Your task to perform on an android device: Search for "macbook pro" on target, select the first entry, add it to the cart, then select checkout. Image 0: 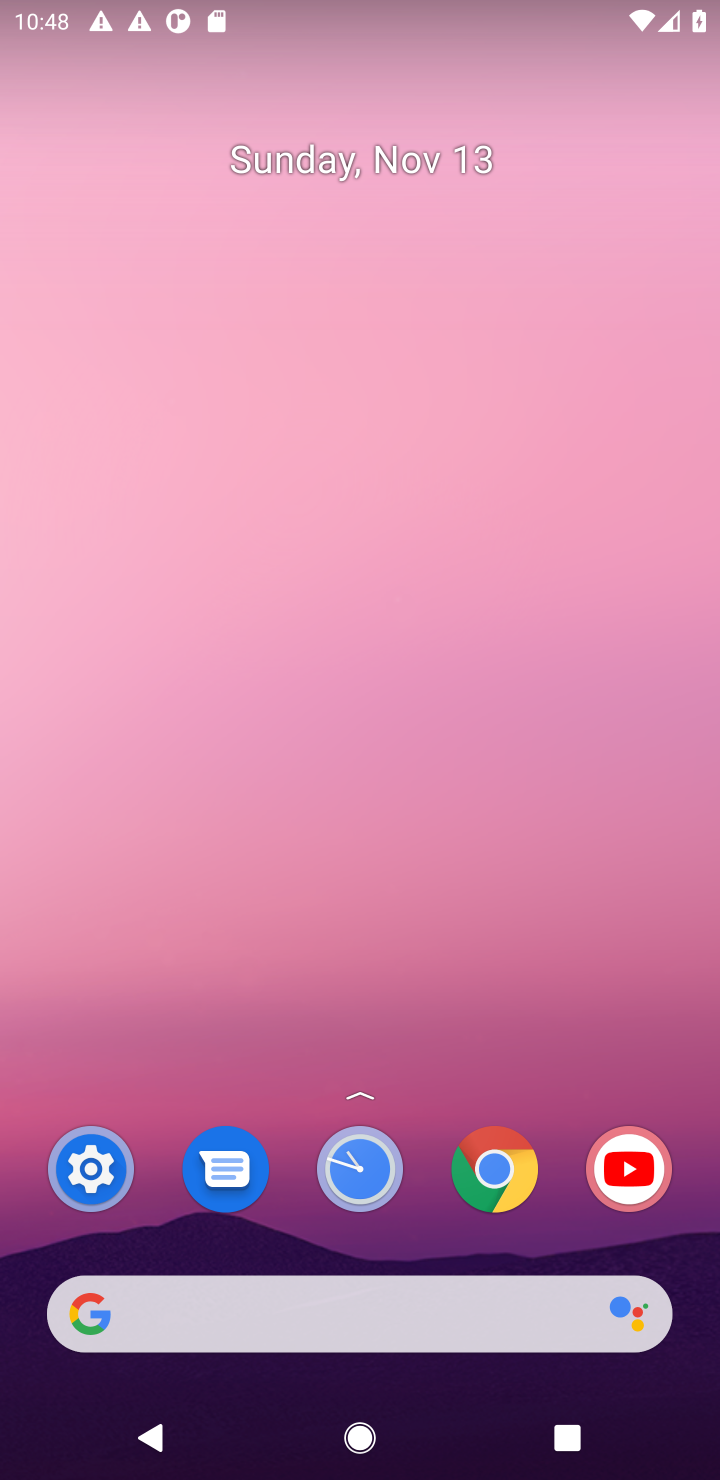
Step 0: drag from (441, 1240) to (248, 113)
Your task to perform on an android device: Search for "macbook pro" on target, select the first entry, add it to the cart, then select checkout. Image 1: 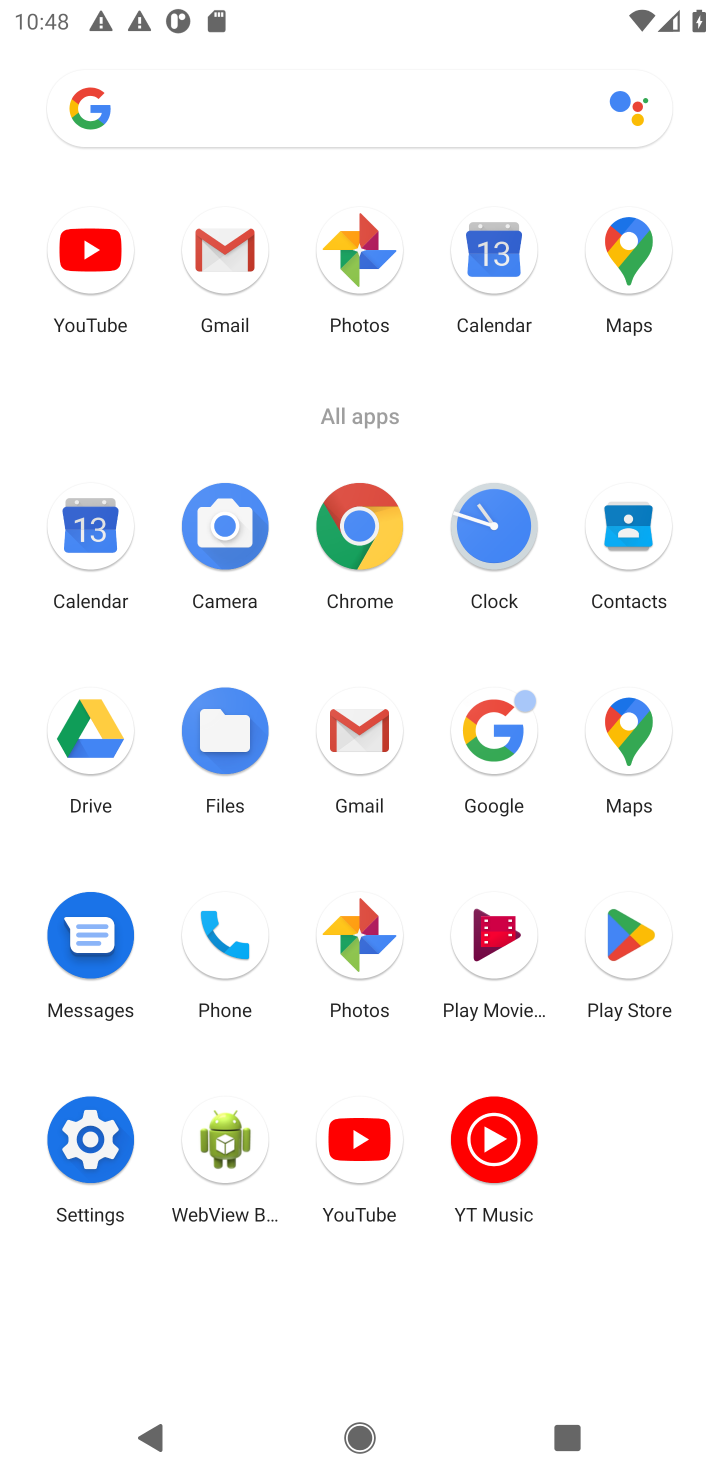
Step 1: click (351, 522)
Your task to perform on an android device: Search for "macbook pro" on target, select the first entry, add it to the cart, then select checkout. Image 2: 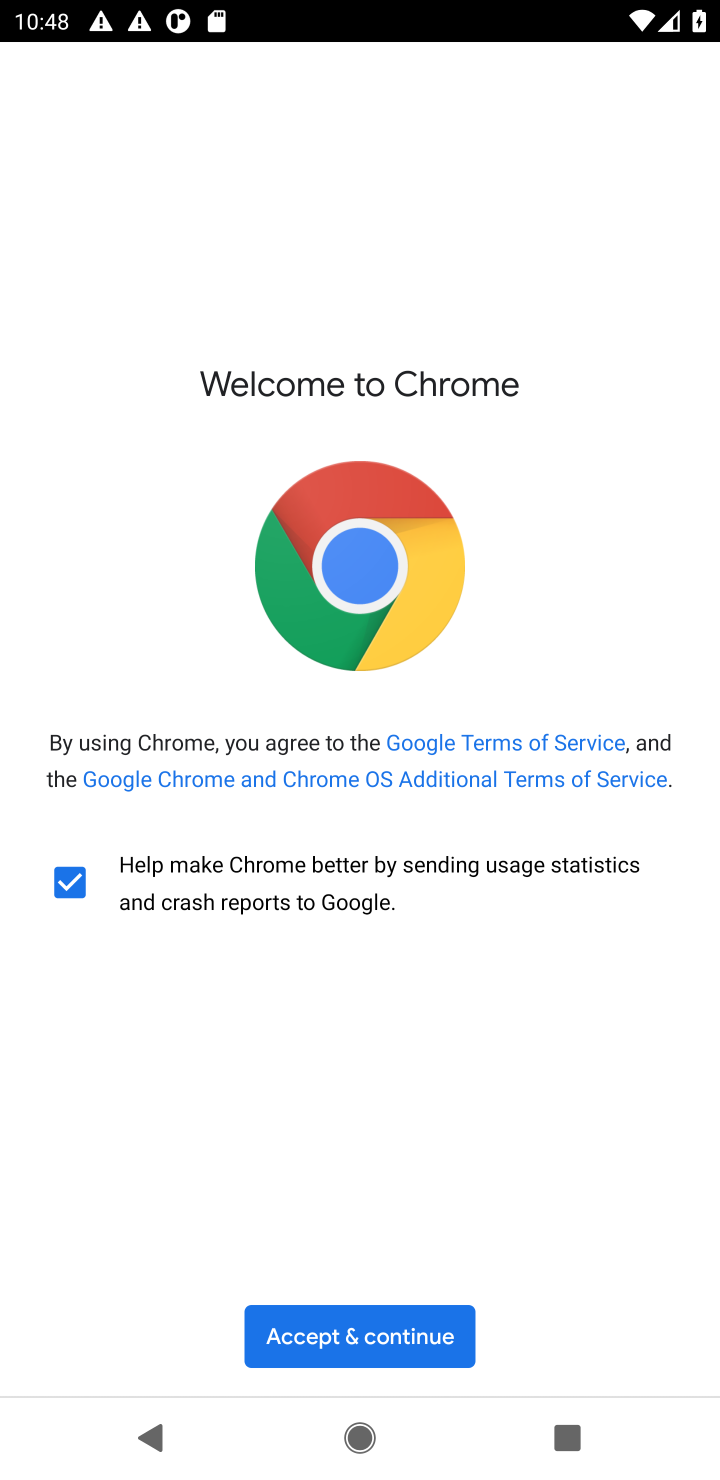
Step 2: click (403, 1344)
Your task to perform on an android device: Search for "macbook pro" on target, select the first entry, add it to the cart, then select checkout. Image 3: 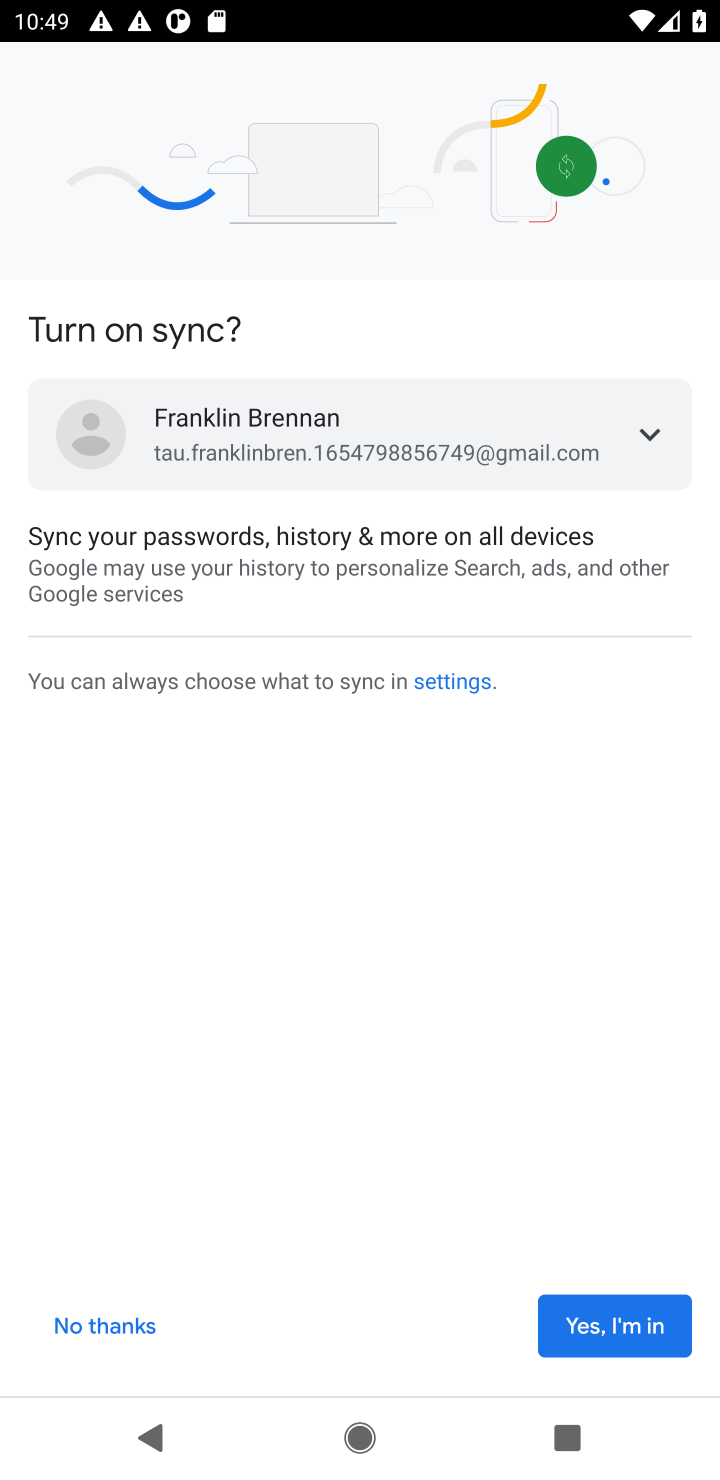
Step 3: click (607, 1317)
Your task to perform on an android device: Search for "macbook pro" on target, select the first entry, add it to the cart, then select checkout. Image 4: 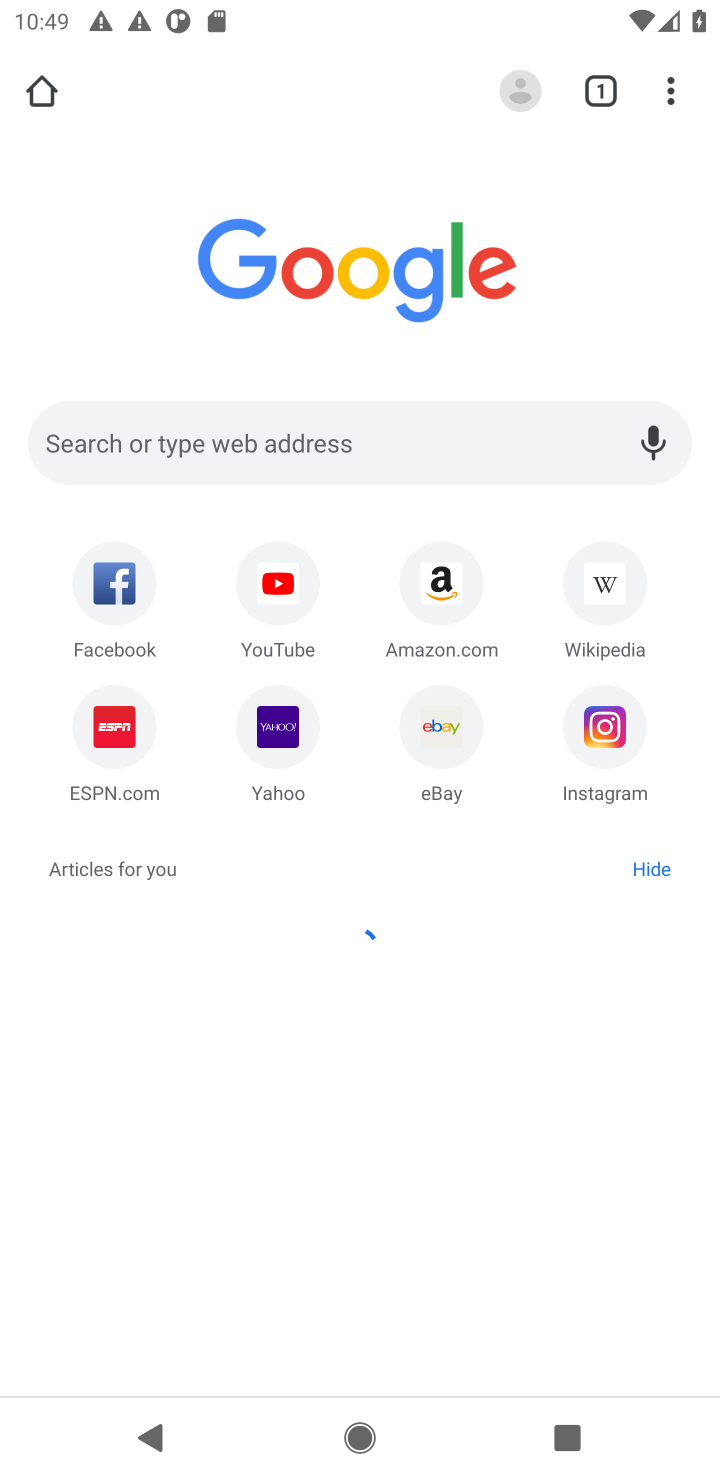
Step 4: click (462, 435)
Your task to perform on an android device: Search for "macbook pro" on target, select the first entry, add it to the cart, then select checkout. Image 5: 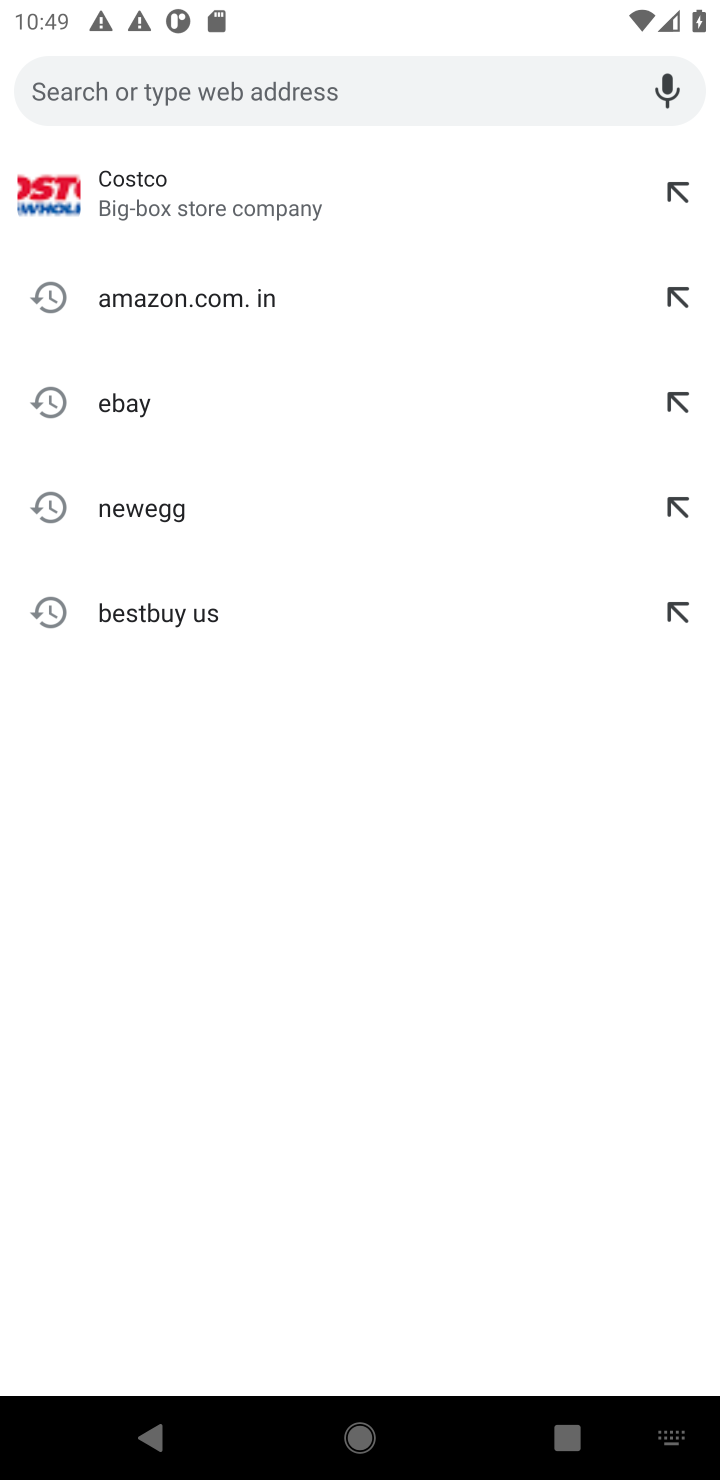
Step 5: type "target.com"
Your task to perform on an android device: Search for "macbook pro" on target, select the first entry, add it to the cart, then select checkout. Image 6: 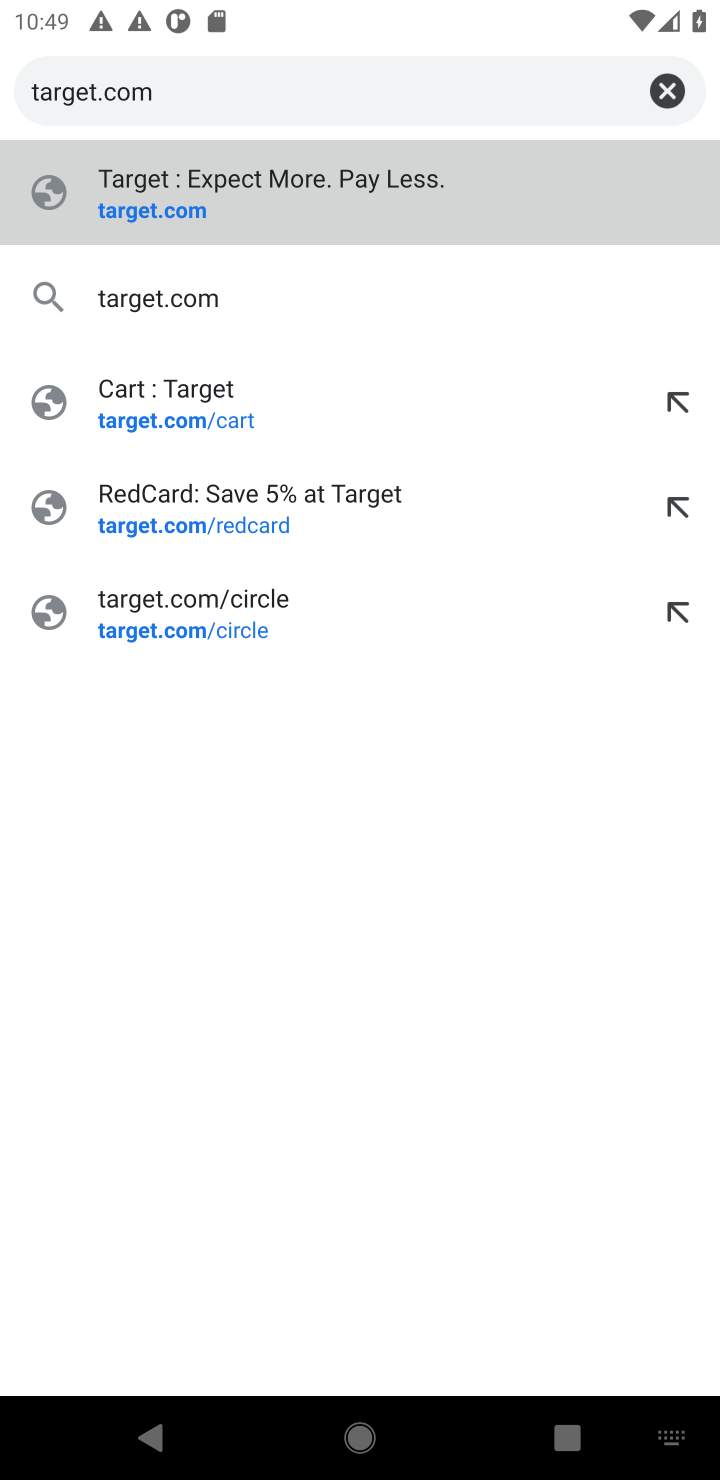
Step 6: press enter
Your task to perform on an android device: Search for "macbook pro" on target, select the first entry, add it to the cart, then select checkout. Image 7: 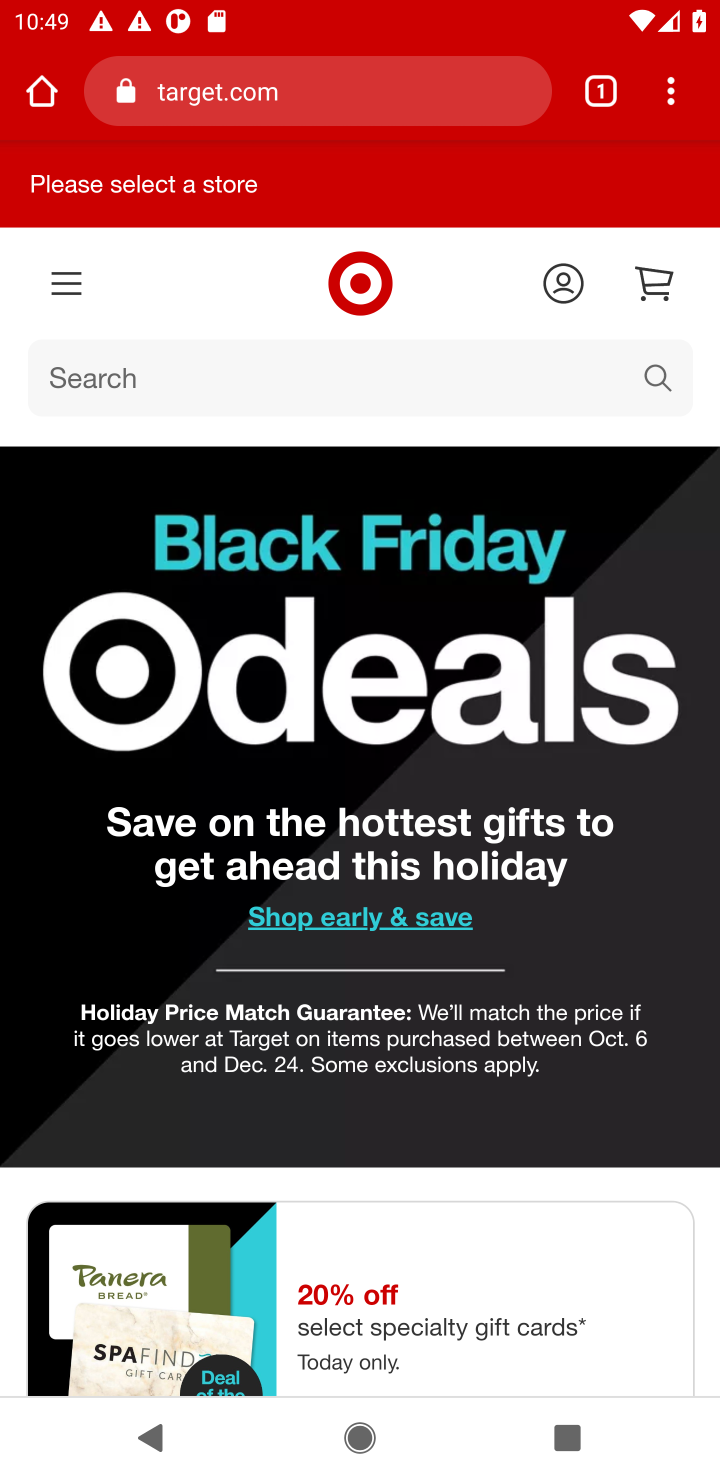
Step 7: click (413, 379)
Your task to perform on an android device: Search for "macbook pro" on target, select the first entry, add it to the cart, then select checkout. Image 8: 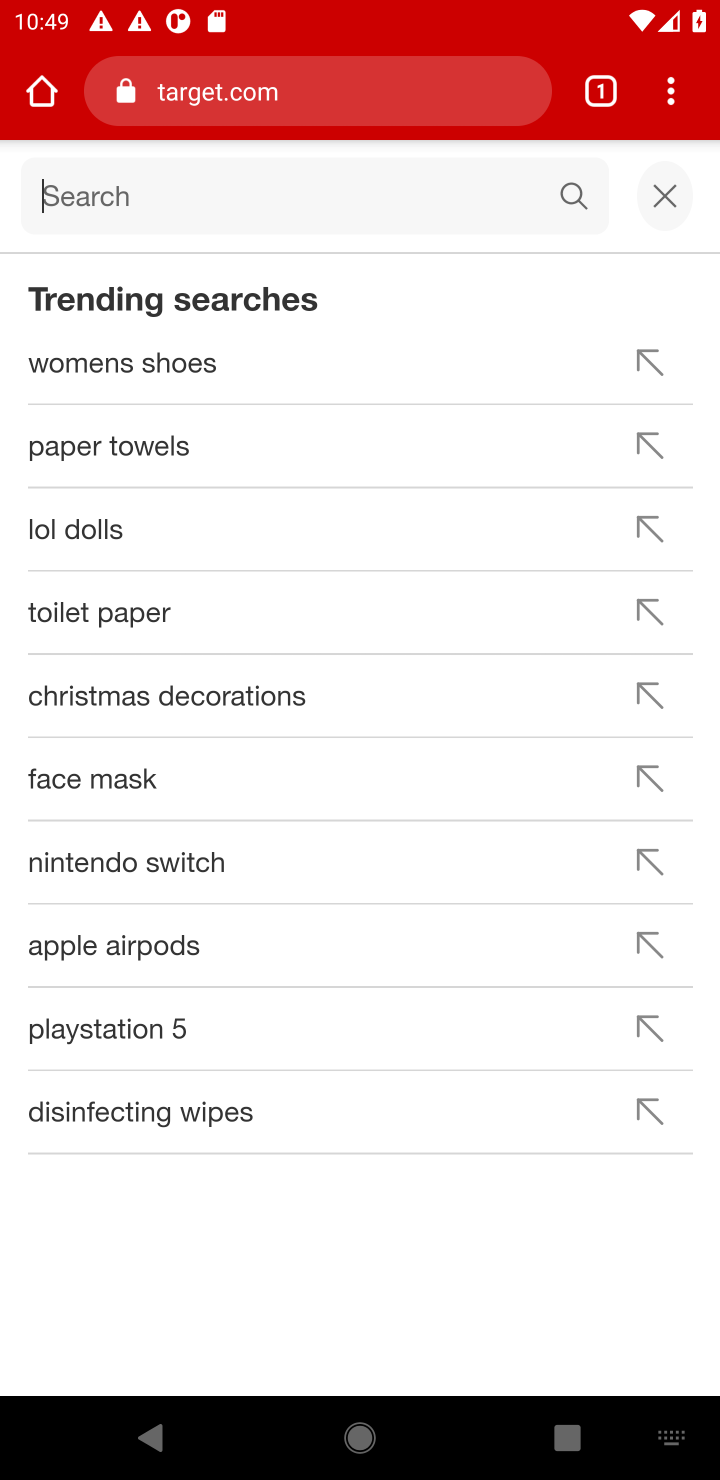
Step 8: type "macbook pro"
Your task to perform on an android device: Search for "macbook pro" on target, select the first entry, add it to the cart, then select checkout. Image 9: 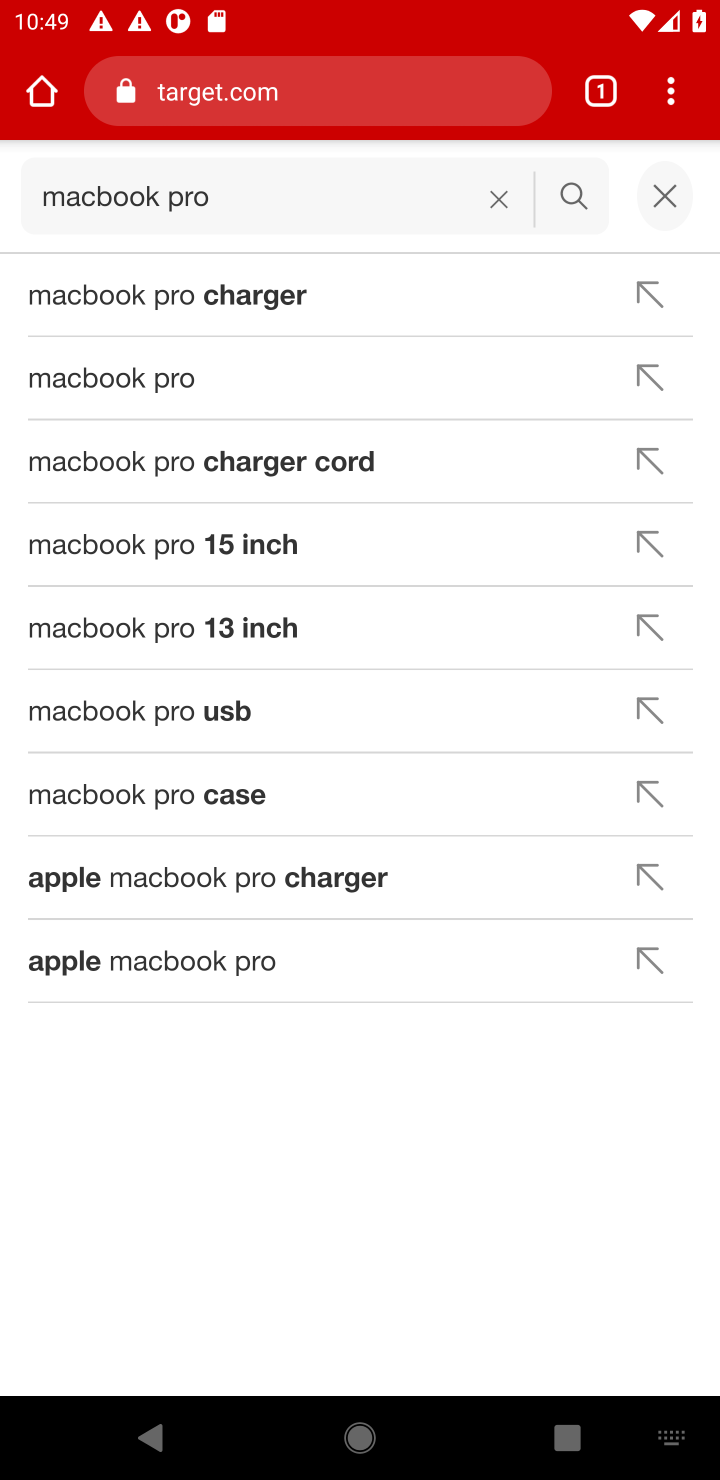
Step 9: press enter
Your task to perform on an android device: Search for "macbook pro" on target, select the first entry, add it to the cart, then select checkout. Image 10: 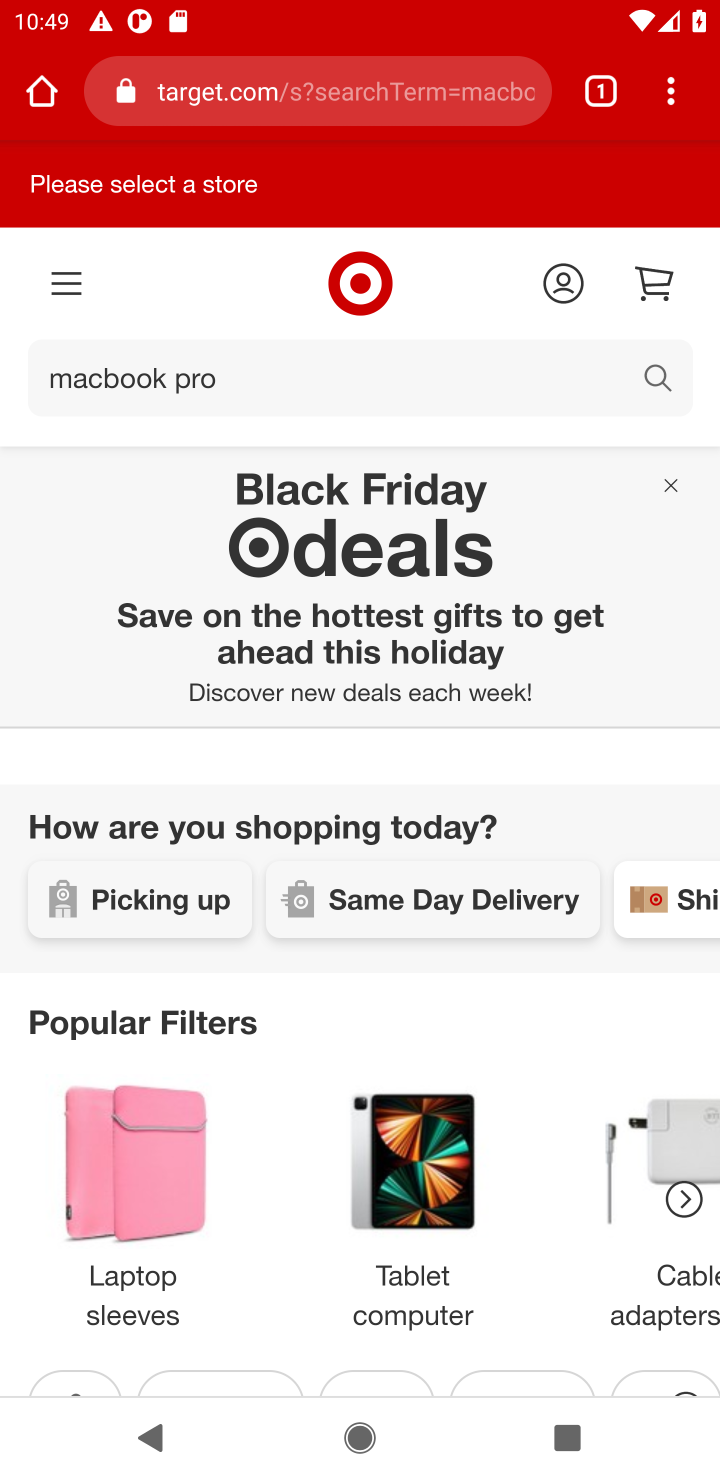
Step 10: drag from (305, 812) to (452, 131)
Your task to perform on an android device: Search for "macbook pro" on target, select the first entry, add it to the cart, then select checkout. Image 11: 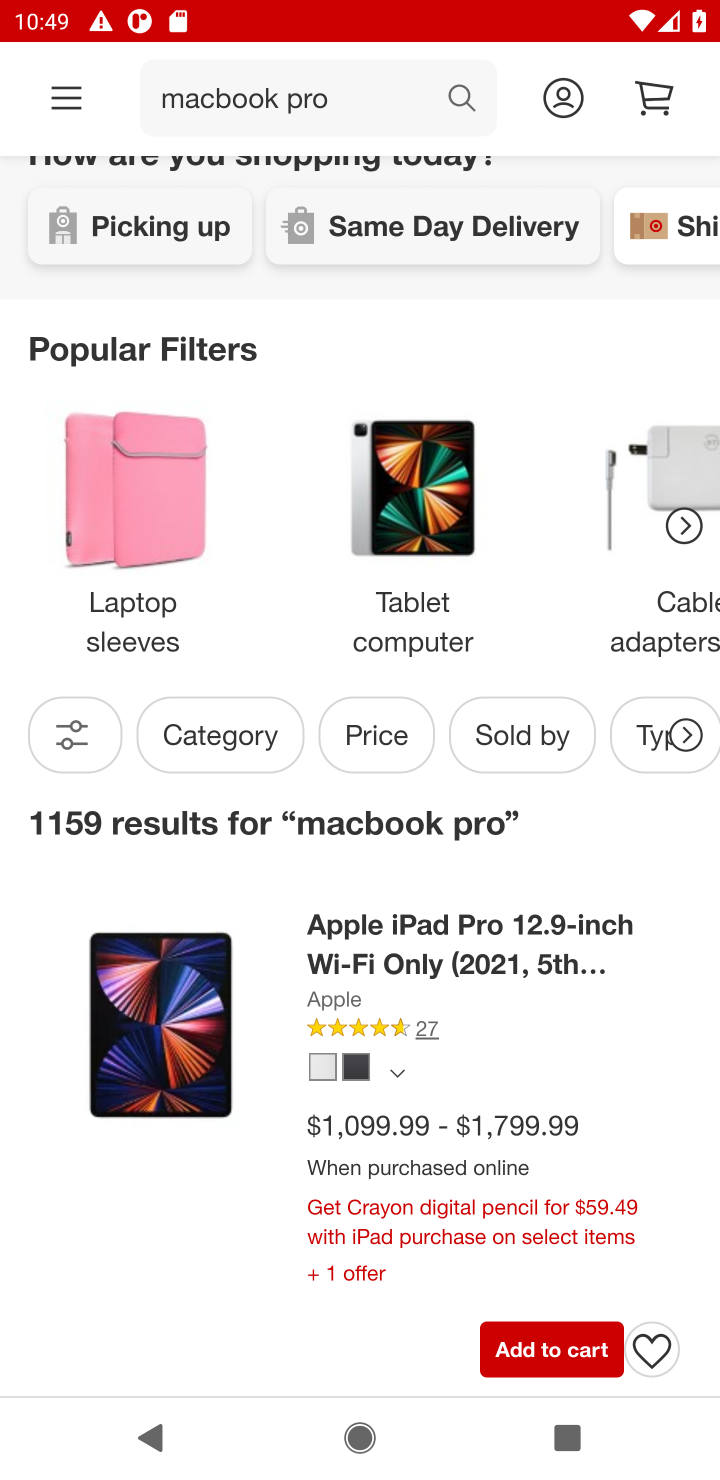
Step 11: drag from (521, 1204) to (542, 854)
Your task to perform on an android device: Search for "macbook pro" on target, select the first entry, add it to the cart, then select checkout. Image 12: 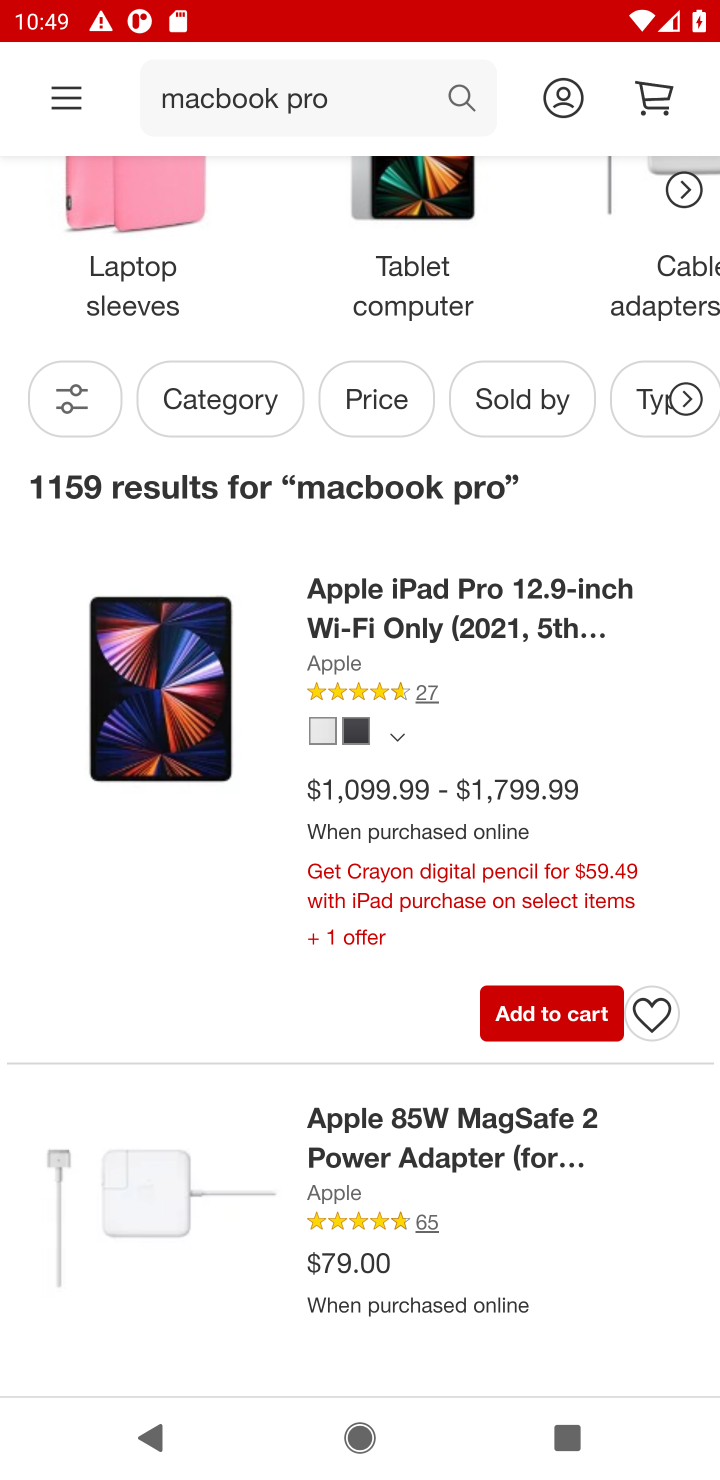
Step 12: click (540, 1008)
Your task to perform on an android device: Search for "macbook pro" on target, select the first entry, add it to the cart, then select checkout. Image 13: 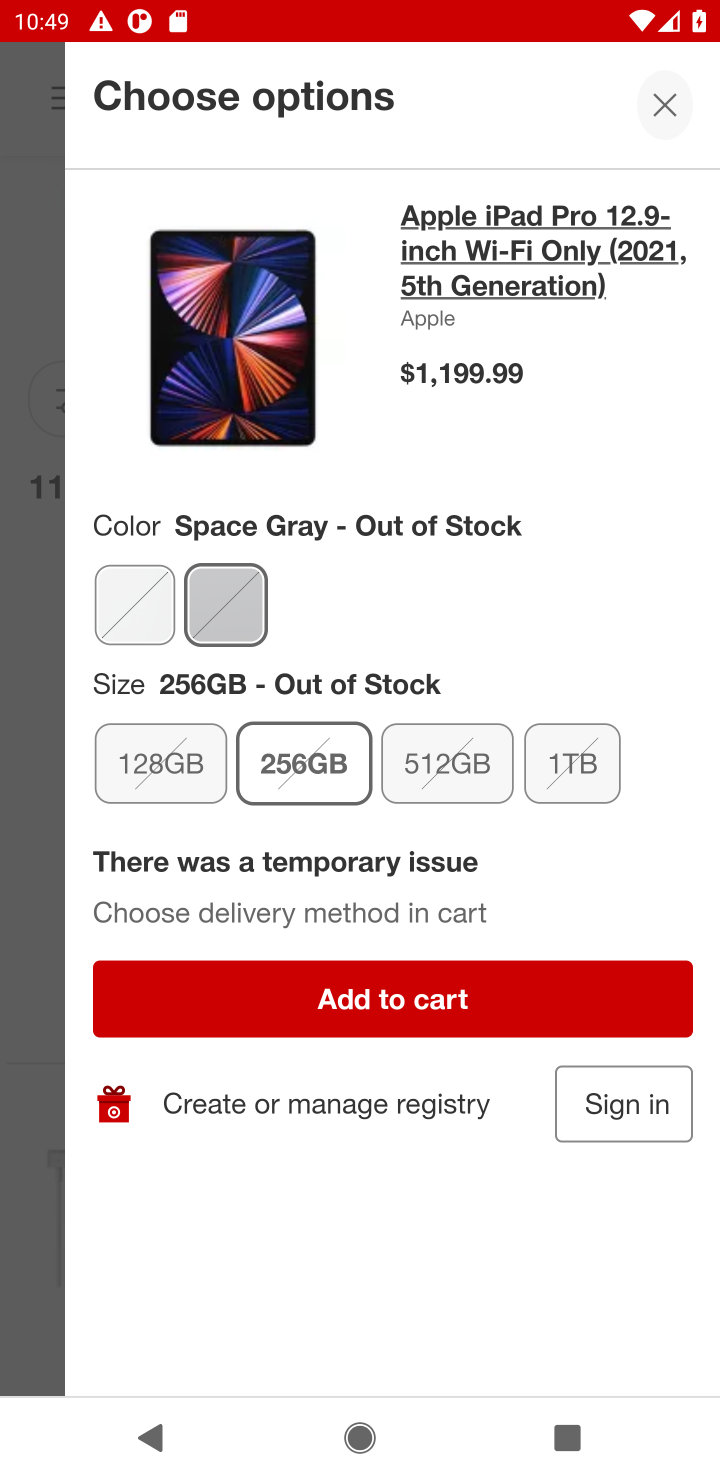
Step 13: click (578, 1019)
Your task to perform on an android device: Search for "macbook pro" on target, select the first entry, add it to the cart, then select checkout. Image 14: 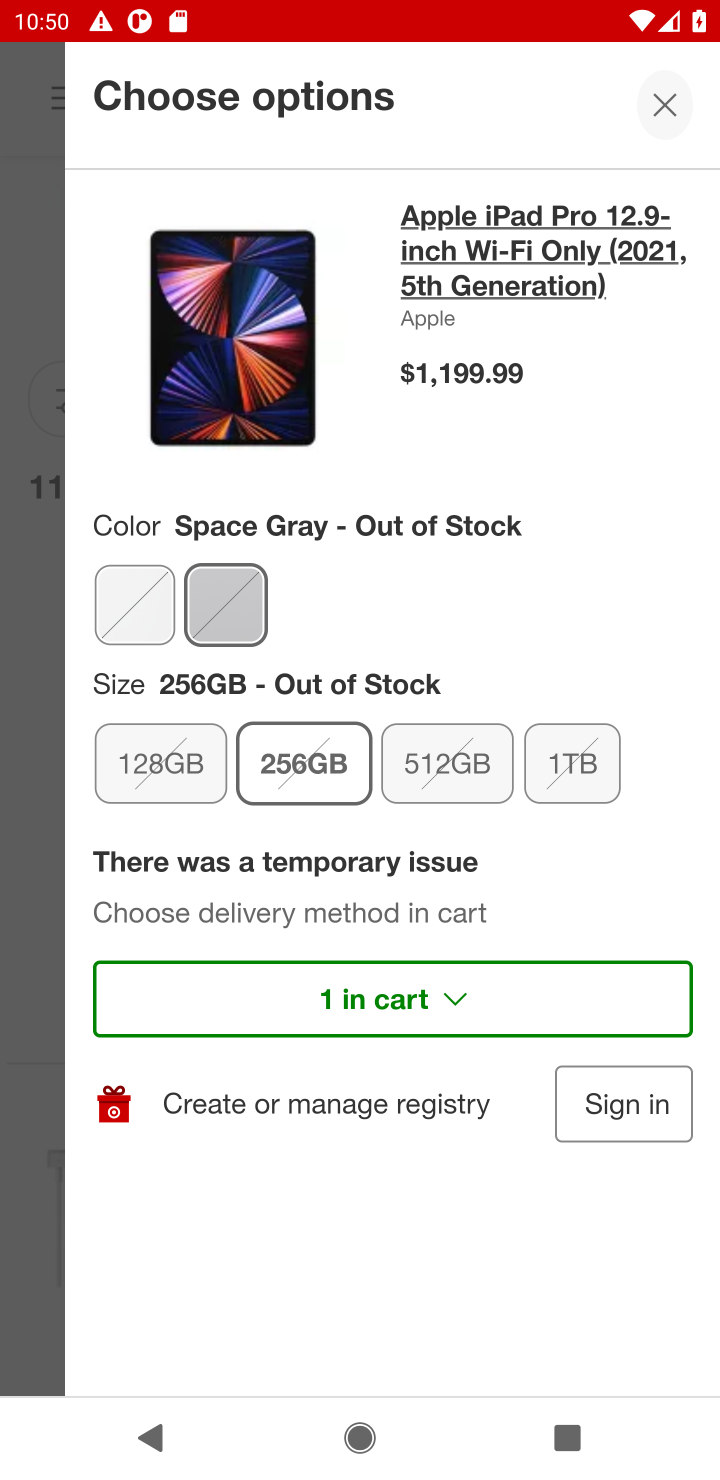
Step 14: task complete